Your task to perform on an android device: open device folders in google photos Image 0: 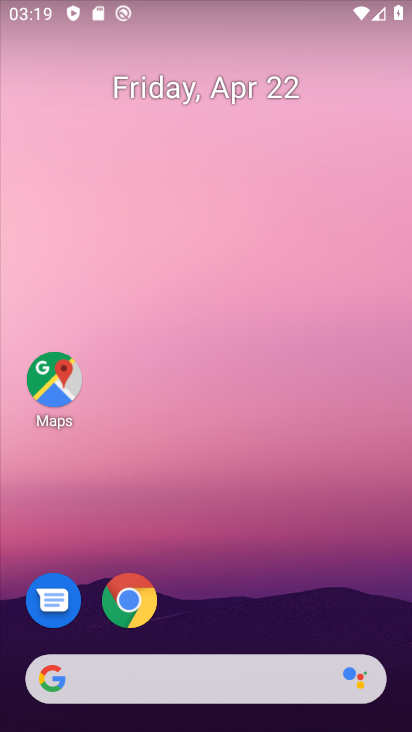
Step 0: drag from (224, 592) to (188, 137)
Your task to perform on an android device: open device folders in google photos Image 1: 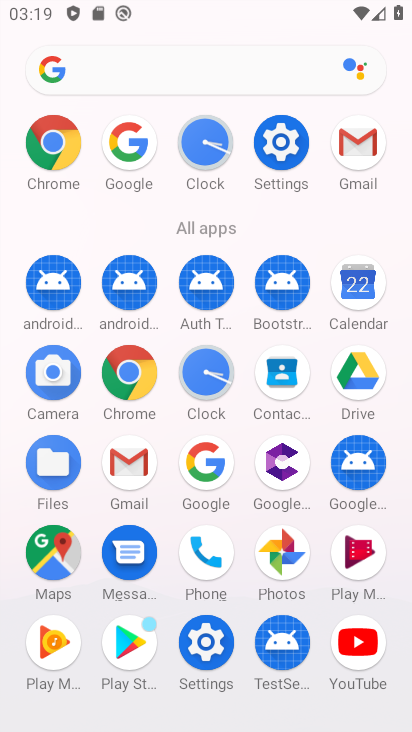
Step 1: click (260, 282)
Your task to perform on an android device: open device folders in google photos Image 2: 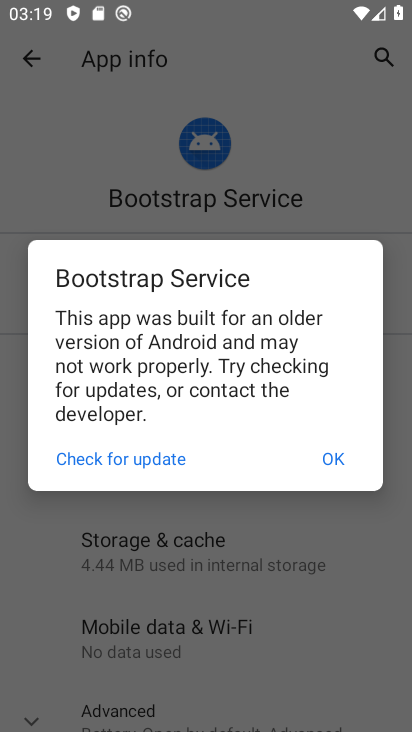
Step 2: press home button
Your task to perform on an android device: open device folders in google photos Image 3: 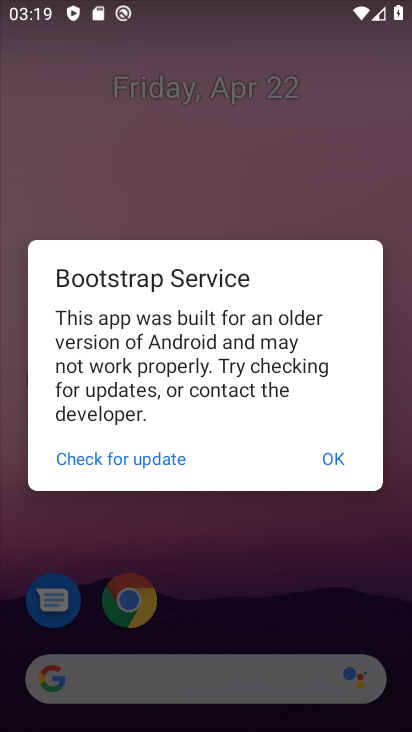
Step 3: click (326, 461)
Your task to perform on an android device: open device folders in google photos Image 4: 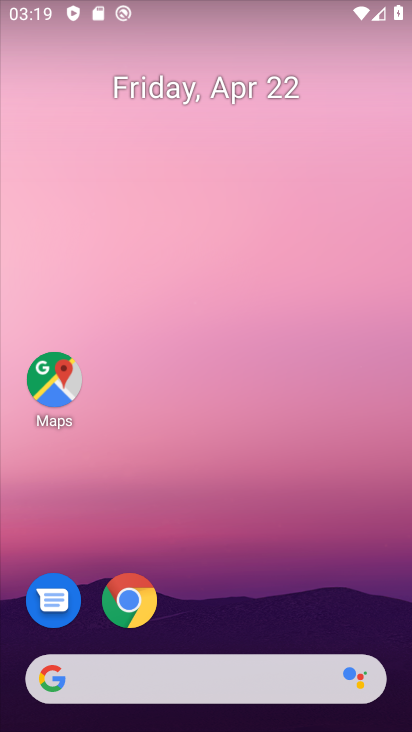
Step 4: drag from (225, 606) to (148, 250)
Your task to perform on an android device: open device folders in google photos Image 5: 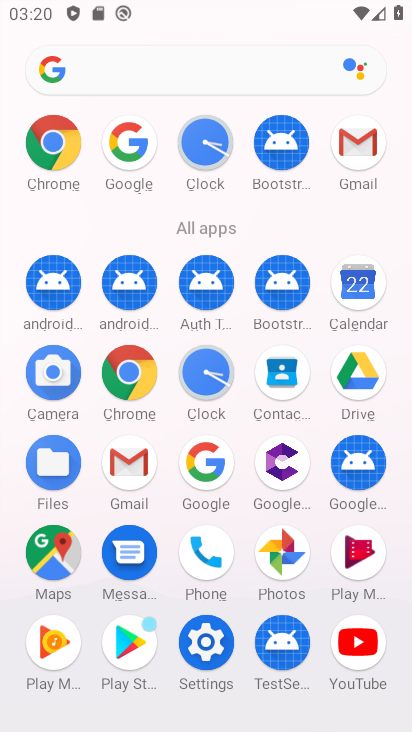
Step 5: click (305, 557)
Your task to perform on an android device: open device folders in google photos Image 6: 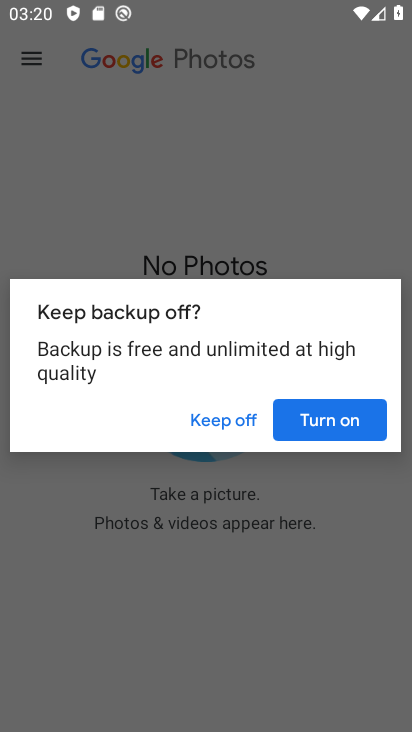
Step 6: click (352, 426)
Your task to perform on an android device: open device folders in google photos Image 7: 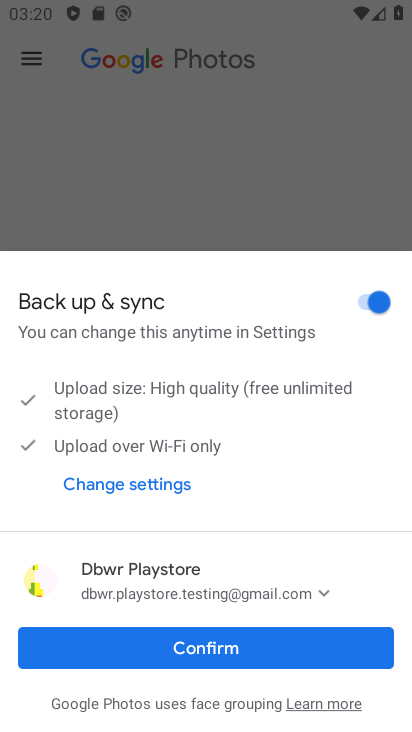
Step 7: click (231, 644)
Your task to perform on an android device: open device folders in google photos Image 8: 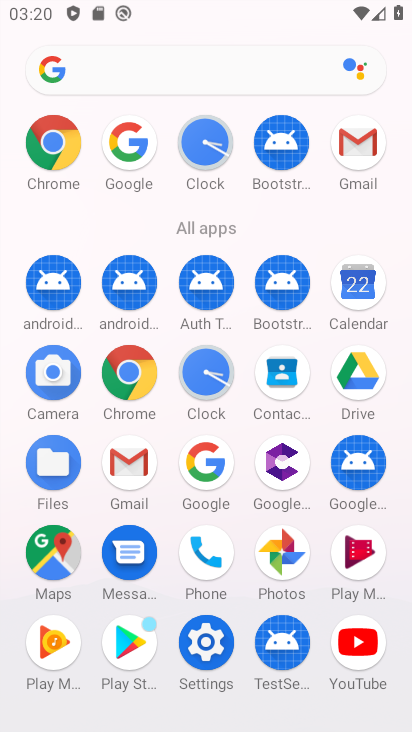
Step 8: click (272, 548)
Your task to perform on an android device: open device folders in google photos Image 9: 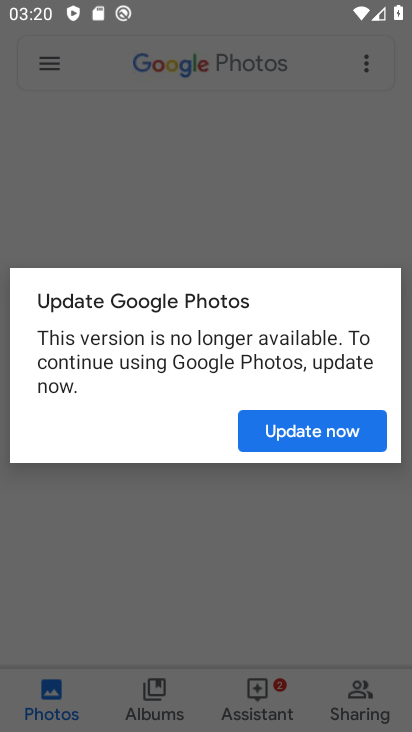
Step 9: click (269, 427)
Your task to perform on an android device: open device folders in google photos Image 10: 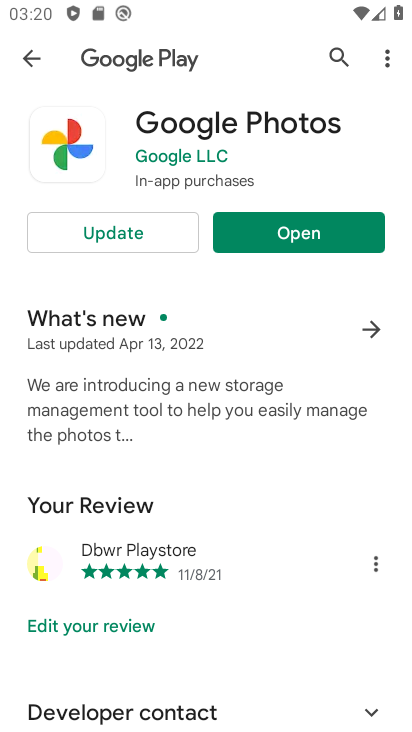
Step 10: click (289, 247)
Your task to perform on an android device: open device folders in google photos Image 11: 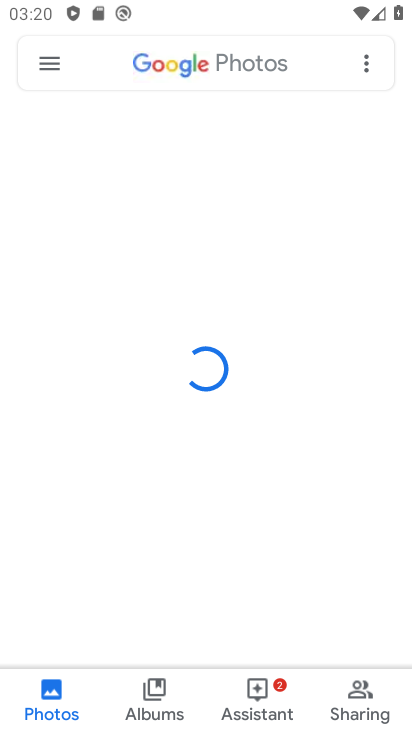
Step 11: click (59, 61)
Your task to perform on an android device: open device folders in google photos Image 12: 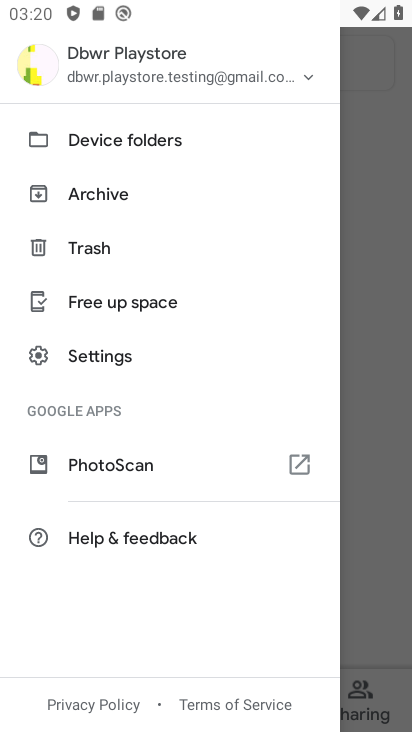
Step 12: click (95, 146)
Your task to perform on an android device: open device folders in google photos Image 13: 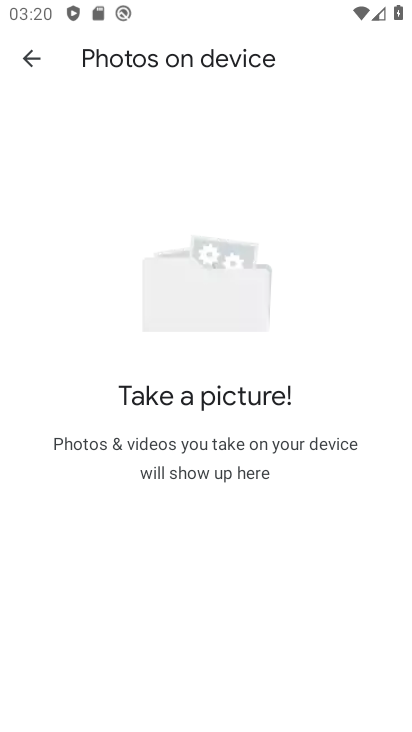
Step 13: task complete